Your task to perform on an android device: Go to Google maps Image 0: 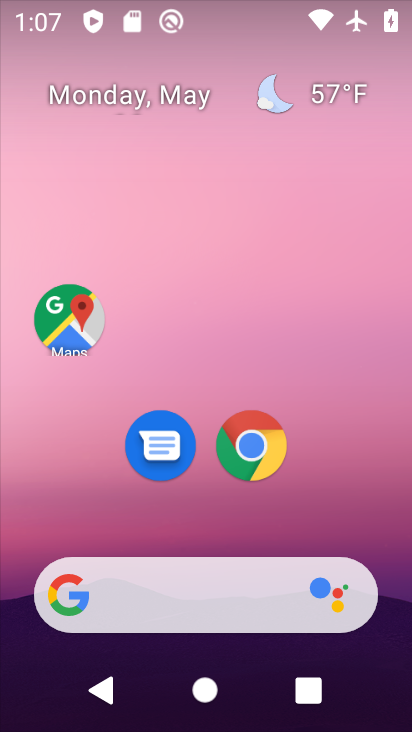
Step 0: drag from (388, 623) to (311, 6)
Your task to perform on an android device: Go to Google maps Image 1: 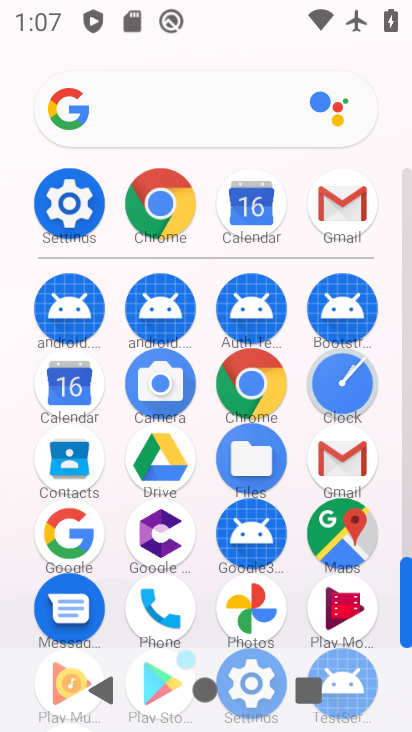
Step 1: click (326, 546)
Your task to perform on an android device: Go to Google maps Image 2: 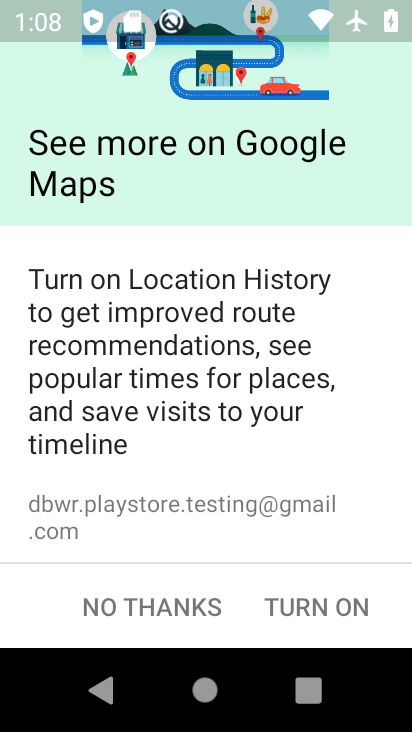
Step 2: click (170, 596)
Your task to perform on an android device: Go to Google maps Image 3: 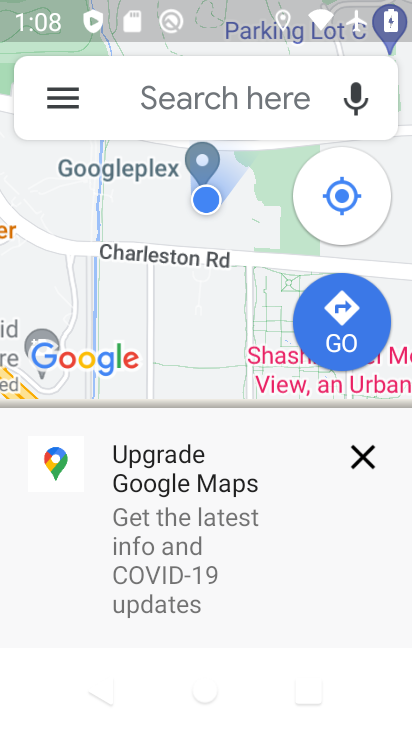
Step 3: task complete